Your task to perform on an android device: What's on my calendar tomorrow? Image 0: 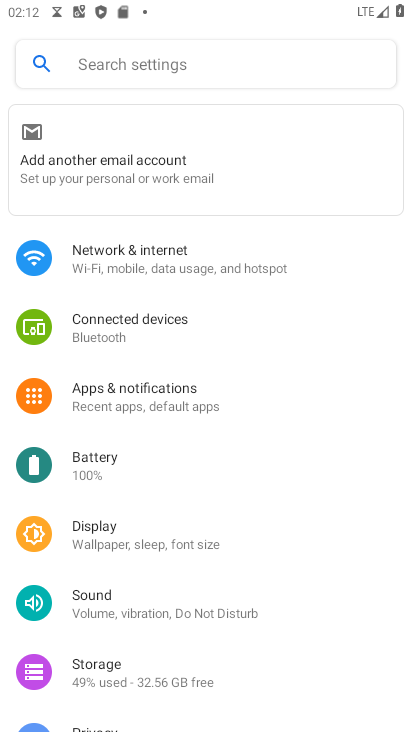
Step 0: press home button
Your task to perform on an android device: What's on my calendar tomorrow? Image 1: 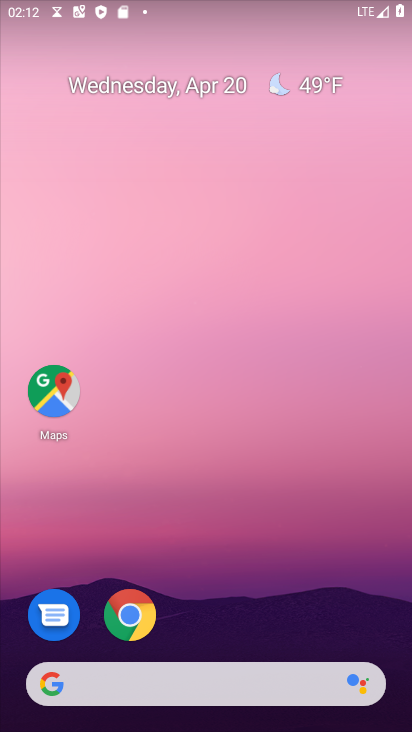
Step 1: drag from (315, 609) to (270, 192)
Your task to perform on an android device: What's on my calendar tomorrow? Image 2: 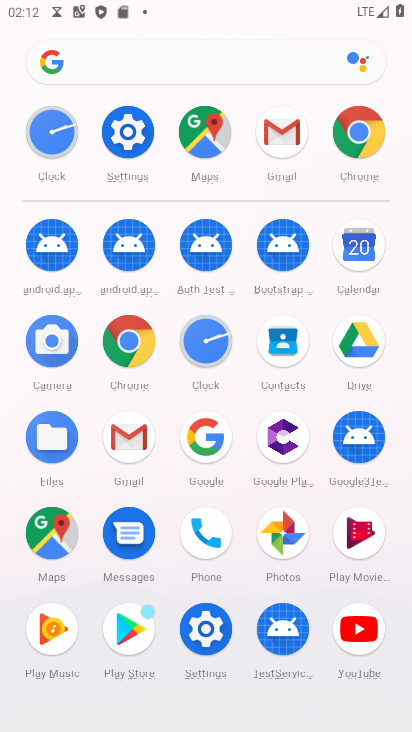
Step 2: click (353, 264)
Your task to perform on an android device: What's on my calendar tomorrow? Image 3: 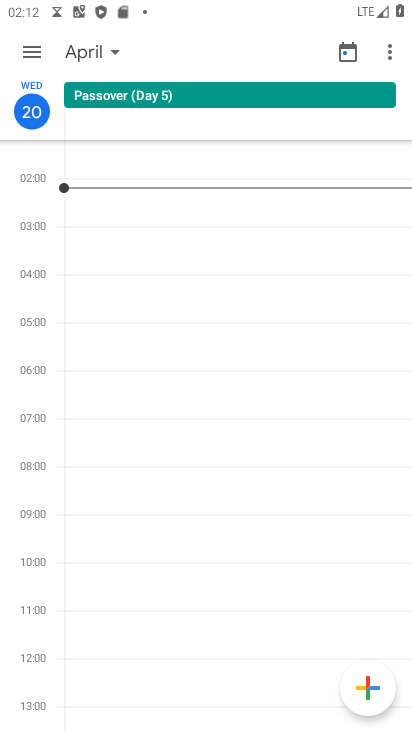
Step 3: click (35, 68)
Your task to perform on an android device: What's on my calendar tomorrow? Image 4: 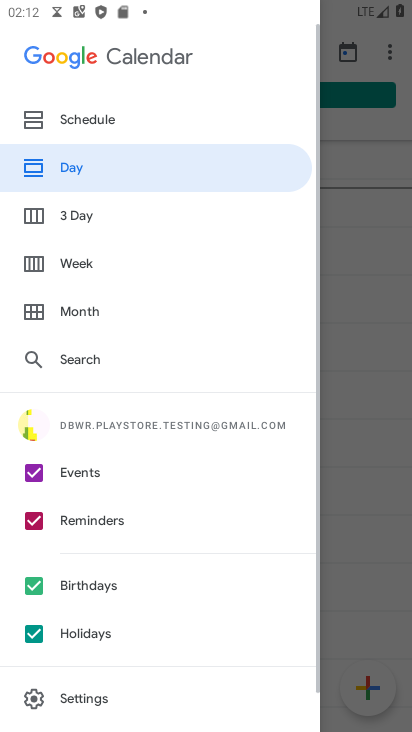
Step 4: click (121, 220)
Your task to perform on an android device: What's on my calendar tomorrow? Image 5: 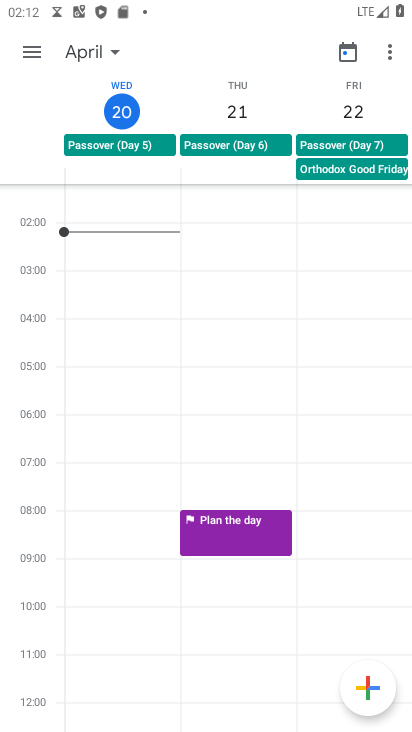
Step 5: click (347, 107)
Your task to perform on an android device: What's on my calendar tomorrow? Image 6: 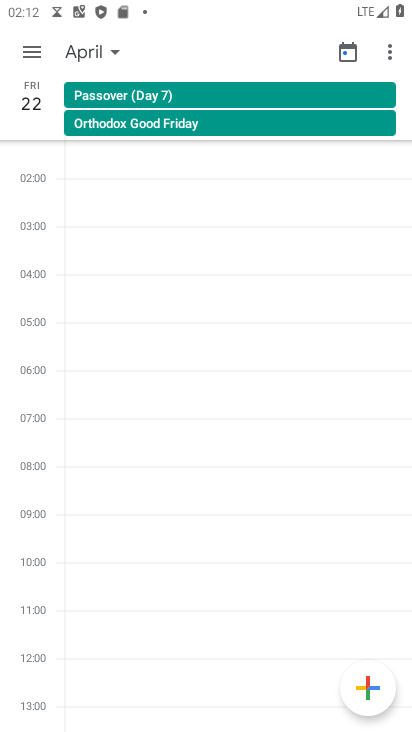
Step 6: click (97, 53)
Your task to perform on an android device: What's on my calendar tomorrow? Image 7: 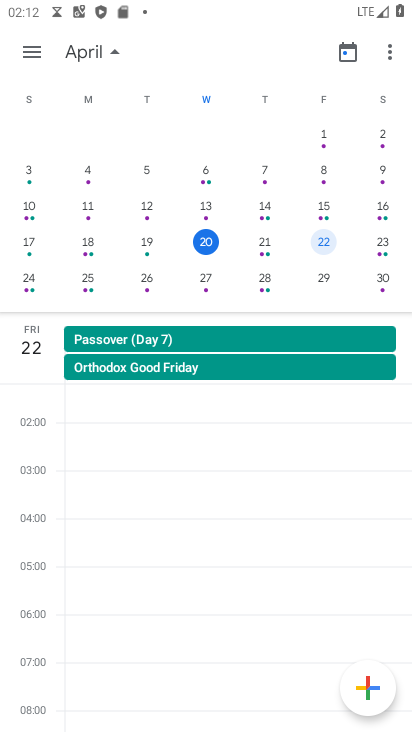
Step 7: click (267, 239)
Your task to perform on an android device: What's on my calendar tomorrow? Image 8: 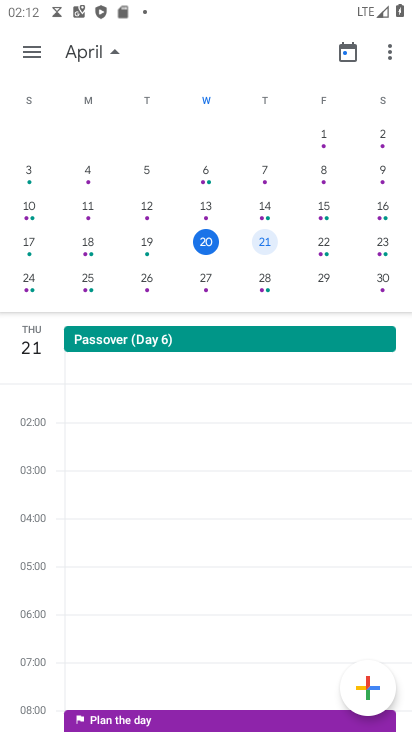
Step 8: task complete